Your task to perform on an android device: clear history in the chrome app Image 0: 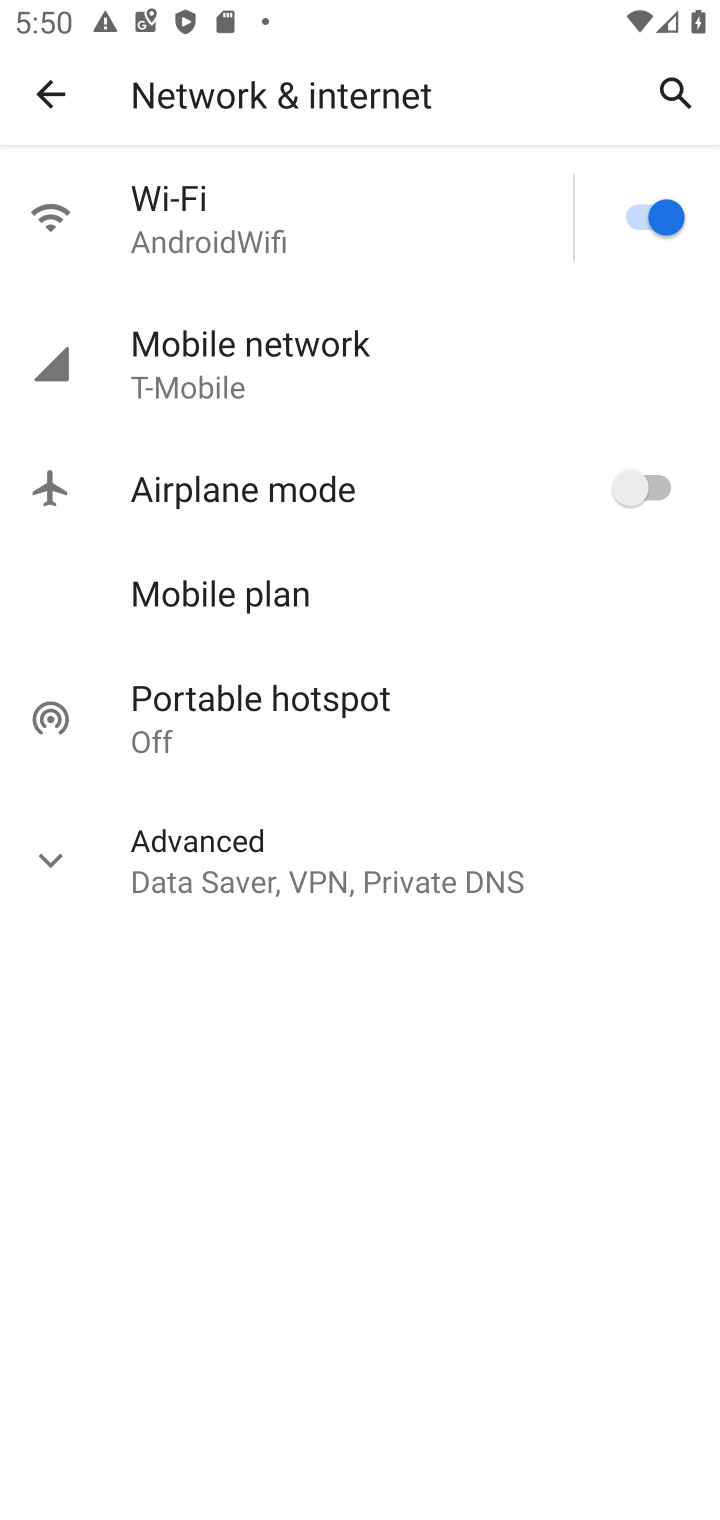
Step 0: task complete